Your task to perform on an android device: toggle translation in the chrome app Image 0: 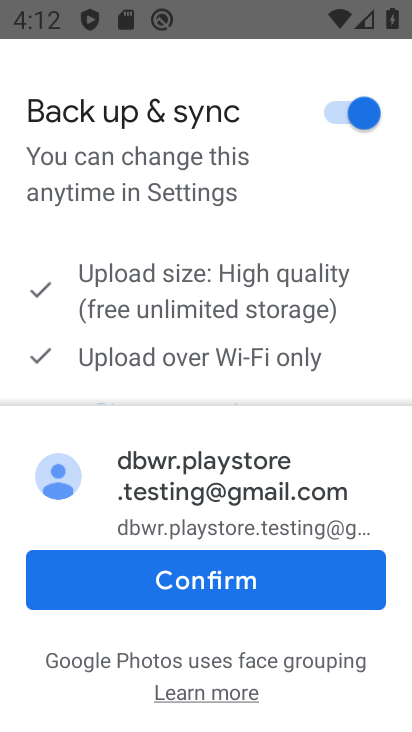
Step 0: press home button
Your task to perform on an android device: toggle translation in the chrome app Image 1: 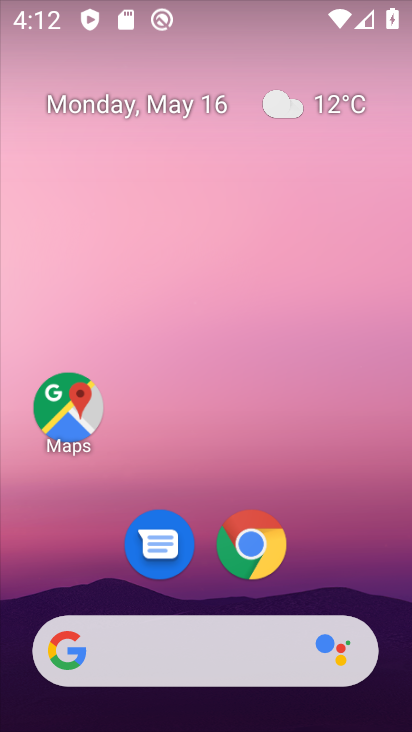
Step 1: click (252, 546)
Your task to perform on an android device: toggle translation in the chrome app Image 2: 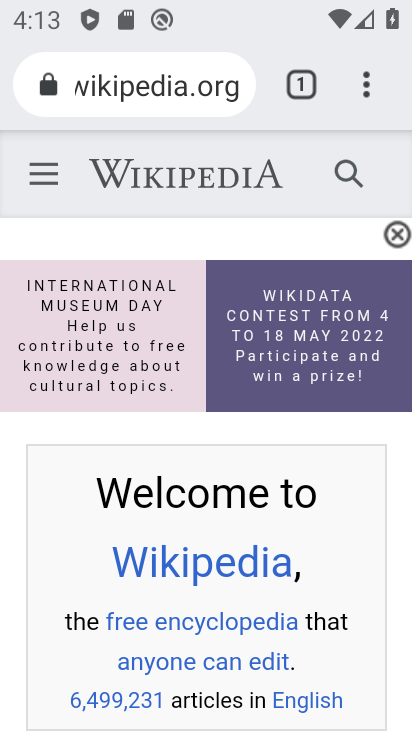
Step 2: click (368, 82)
Your task to perform on an android device: toggle translation in the chrome app Image 3: 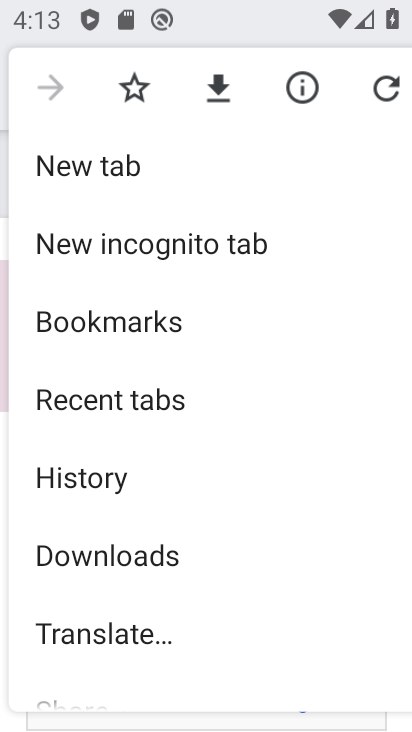
Step 3: drag from (147, 586) to (183, 457)
Your task to perform on an android device: toggle translation in the chrome app Image 4: 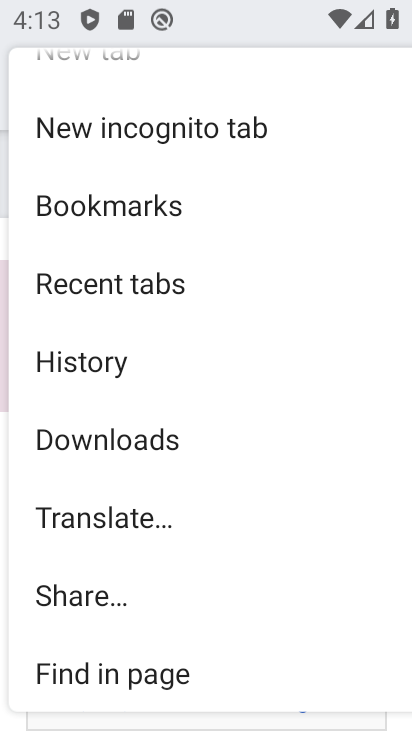
Step 4: drag from (131, 577) to (201, 429)
Your task to perform on an android device: toggle translation in the chrome app Image 5: 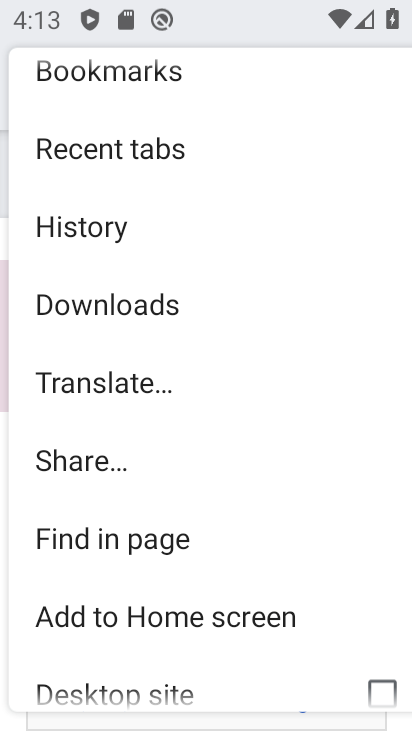
Step 5: drag from (153, 560) to (196, 435)
Your task to perform on an android device: toggle translation in the chrome app Image 6: 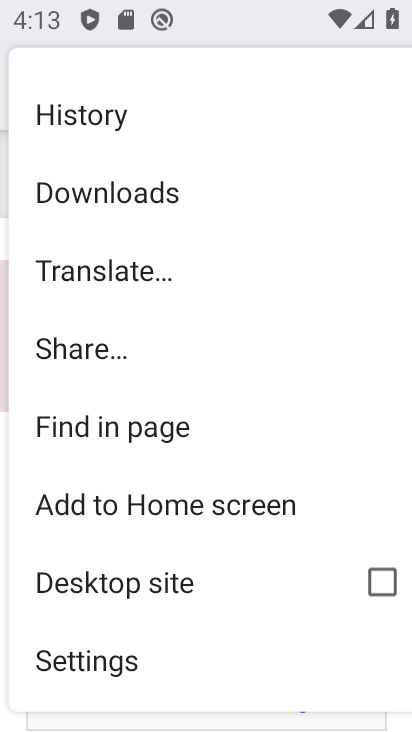
Step 6: drag from (149, 602) to (223, 488)
Your task to perform on an android device: toggle translation in the chrome app Image 7: 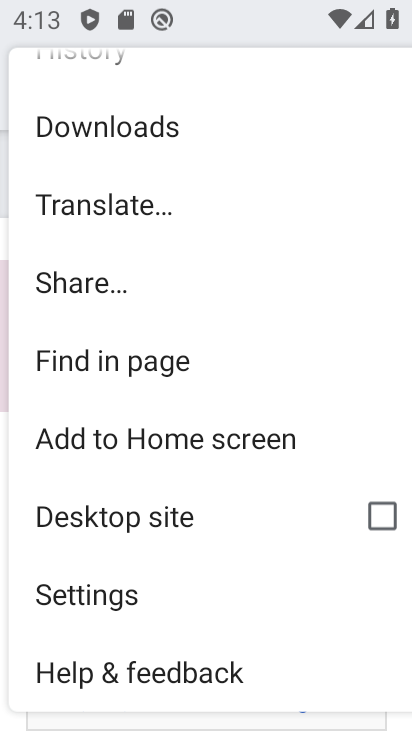
Step 7: click (113, 597)
Your task to perform on an android device: toggle translation in the chrome app Image 8: 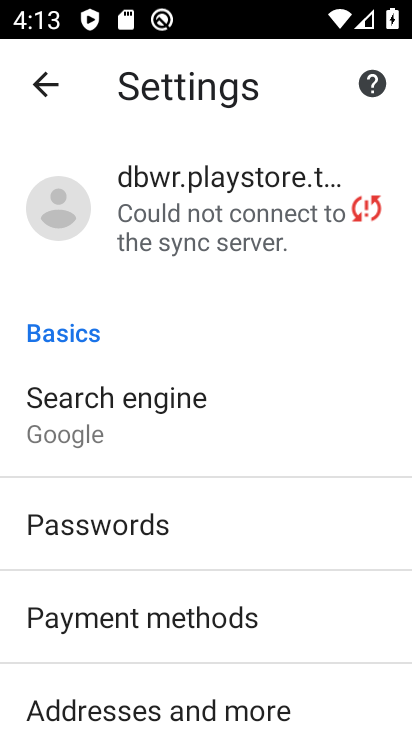
Step 8: drag from (153, 589) to (222, 498)
Your task to perform on an android device: toggle translation in the chrome app Image 9: 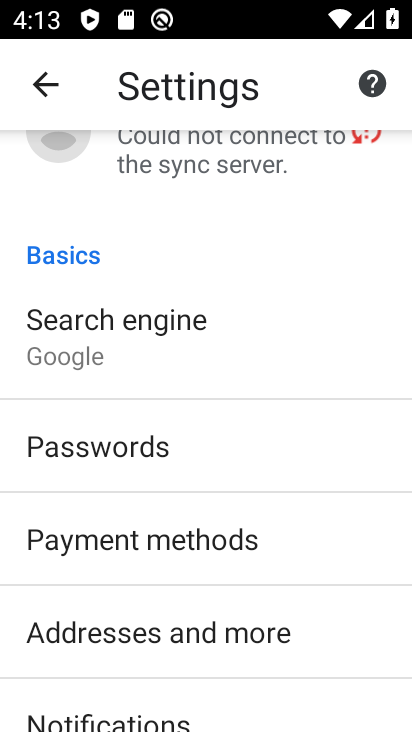
Step 9: drag from (196, 668) to (296, 486)
Your task to perform on an android device: toggle translation in the chrome app Image 10: 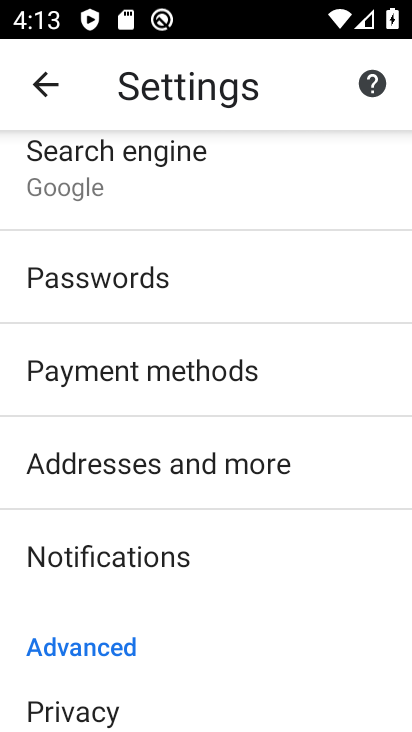
Step 10: drag from (146, 601) to (222, 472)
Your task to perform on an android device: toggle translation in the chrome app Image 11: 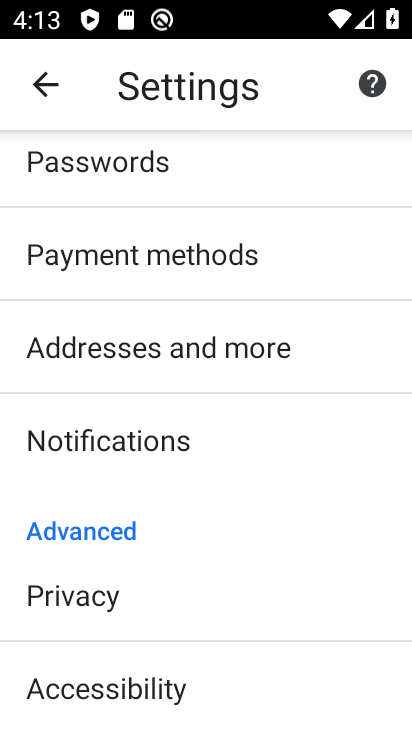
Step 11: drag from (161, 646) to (201, 465)
Your task to perform on an android device: toggle translation in the chrome app Image 12: 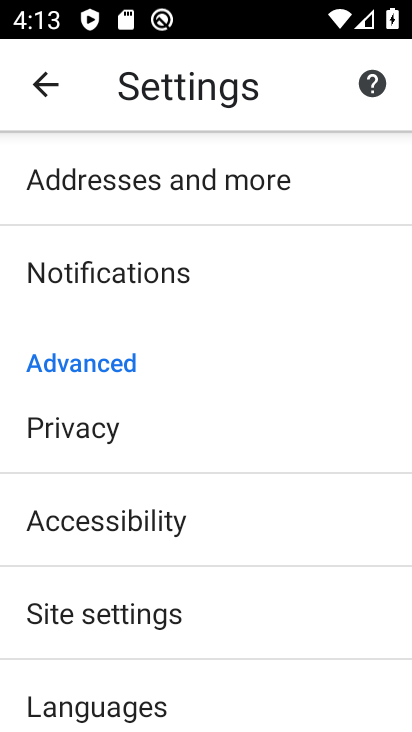
Step 12: drag from (224, 634) to (242, 495)
Your task to perform on an android device: toggle translation in the chrome app Image 13: 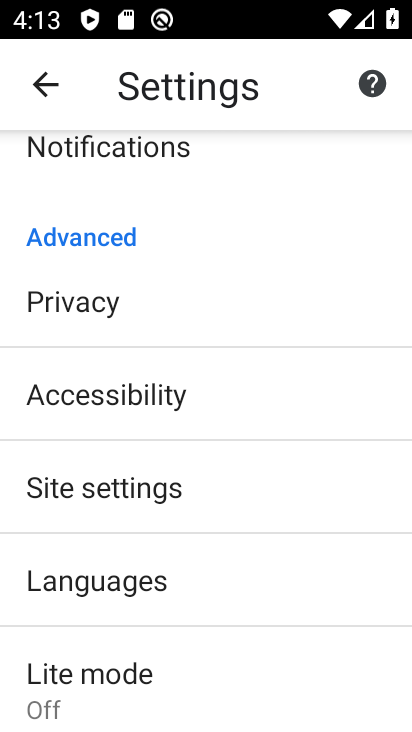
Step 13: click (148, 572)
Your task to perform on an android device: toggle translation in the chrome app Image 14: 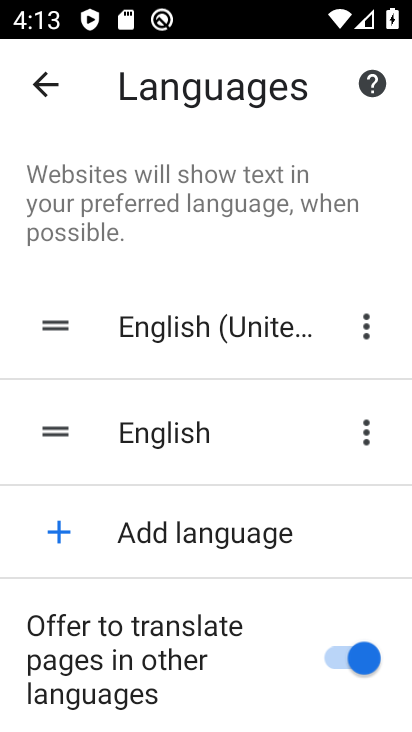
Step 14: click (358, 651)
Your task to perform on an android device: toggle translation in the chrome app Image 15: 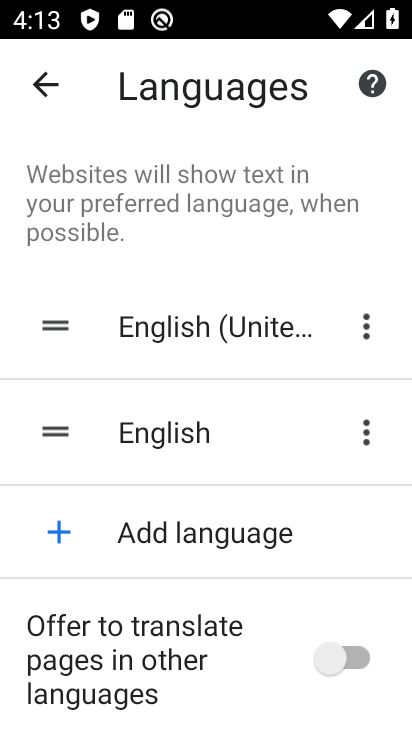
Step 15: task complete